Your task to perform on an android device: Open wifi settings Image 0: 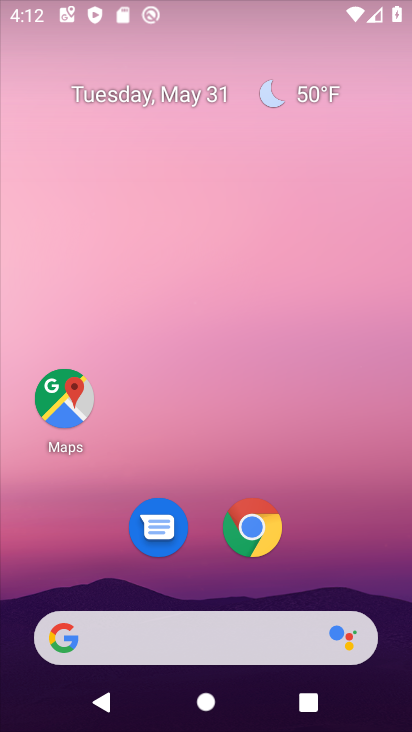
Step 0: drag from (394, 609) to (323, 236)
Your task to perform on an android device: Open wifi settings Image 1: 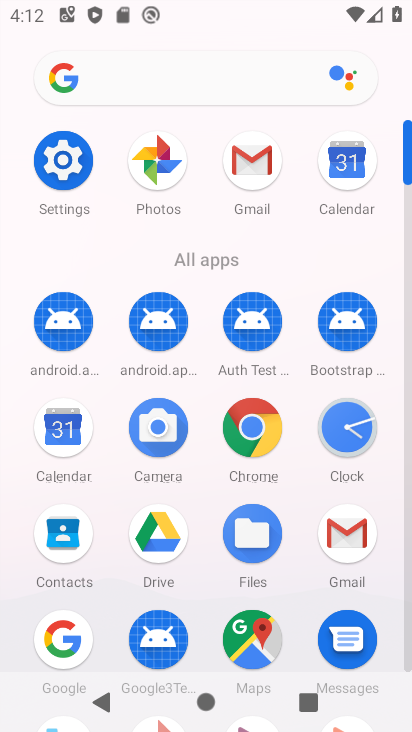
Step 1: click (59, 157)
Your task to perform on an android device: Open wifi settings Image 2: 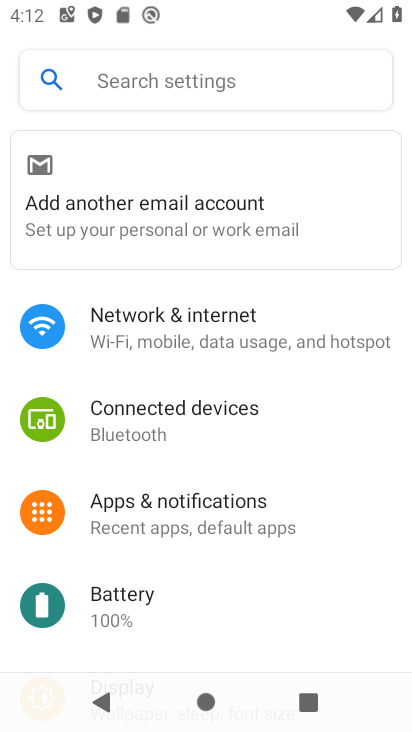
Step 2: click (174, 342)
Your task to perform on an android device: Open wifi settings Image 3: 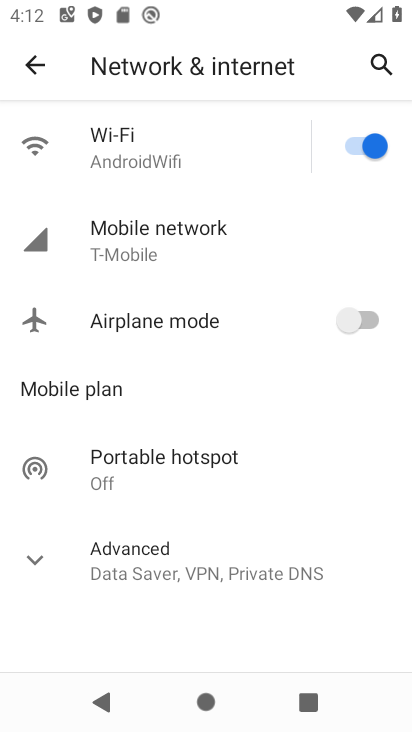
Step 3: click (140, 161)
Your task to perform on an android device: Open wifi settings Image 4: 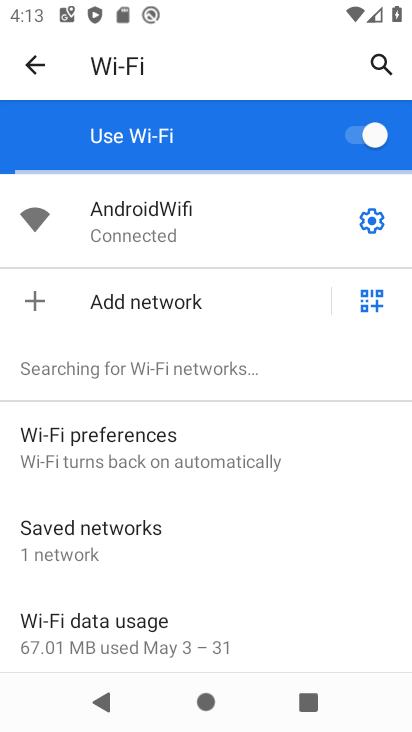
Step 4: task complete